Your task to perform on an android device: add a contact in the contacts app Image 0: 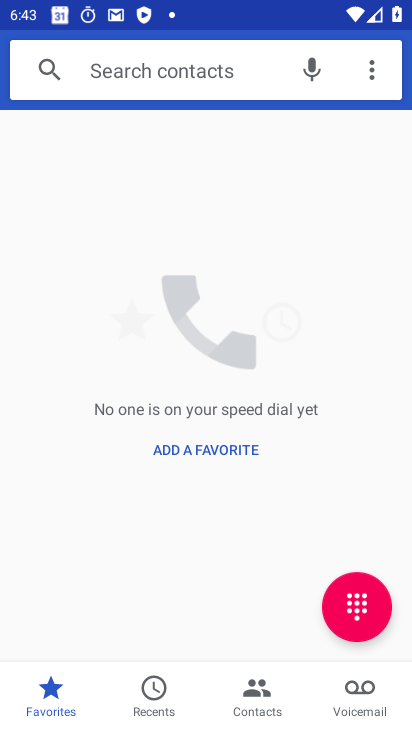
Step 0: press home button
Your task to perform on an android device: add a contact in the contacts app Image 1: 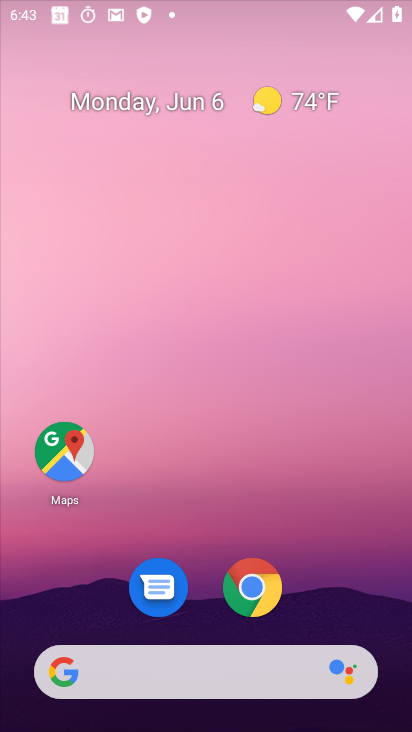
Step 1: drag from (394, 686) to (354, 404)
Your task to perform on an android device: add a contact in the contacts app Image 2: 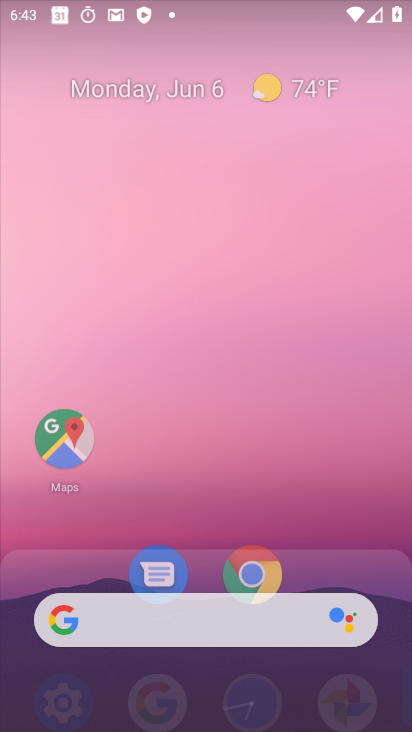
Step 2: click (49, 507)
Your task to perform on an android device: add a contact in the contacts app Image 3: 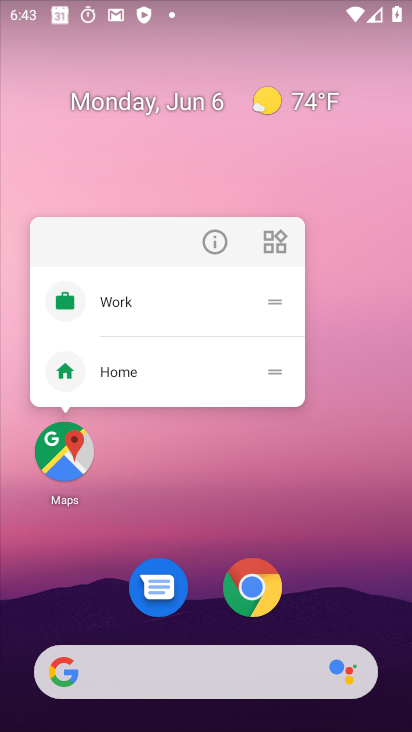
Step 3: click (304, 546)
Your task to perform on an android device: add a contact in the contacts app Image 4: 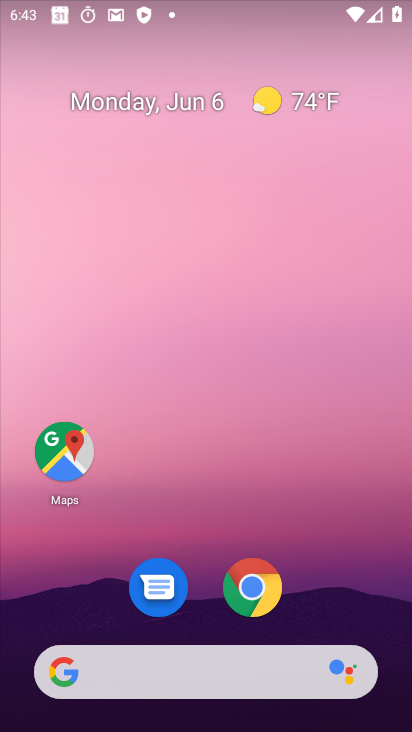
Step 4: drag from (380, 631) to (275, 56)
Your task to perform on an android device: add a contact in the contacts app Image 5: 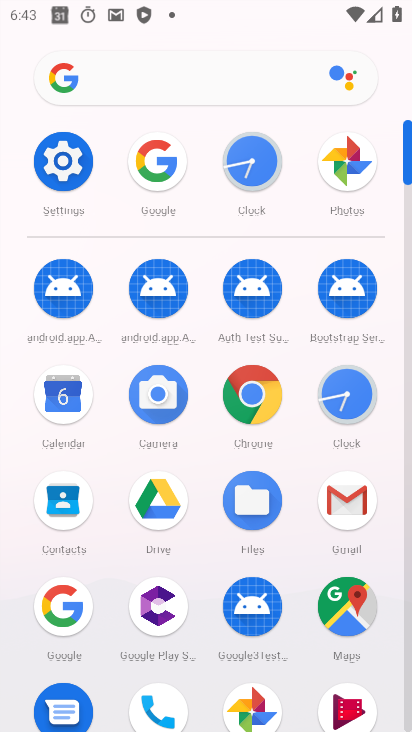
Step 5: click (71, 523)
Your task to perform on an android device: add a contact in the contacts app Image 6: 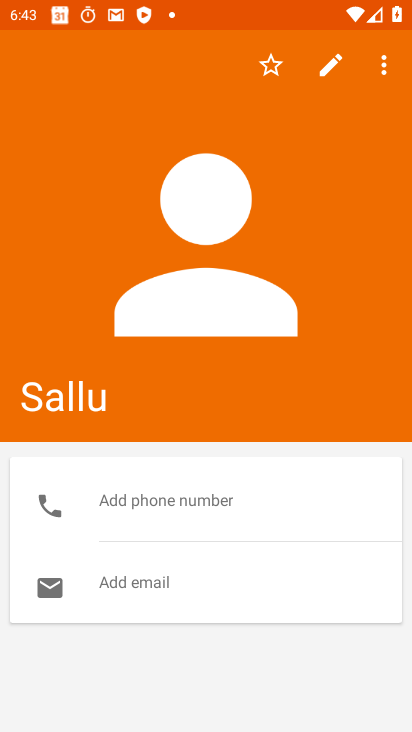
Step 6: press back button
Your task to perform on an android device: add a contact in the contacts app Image 7: 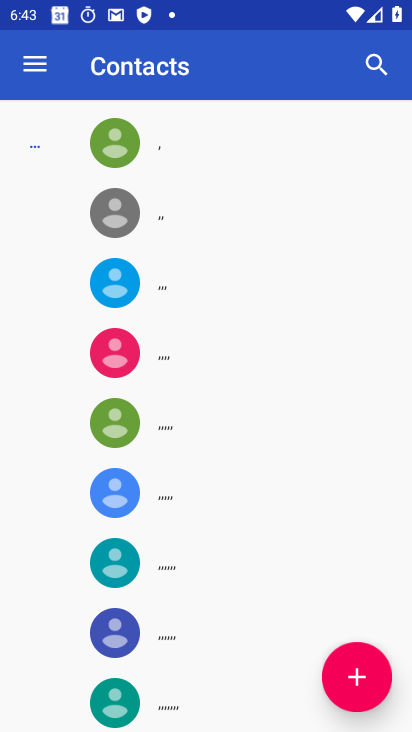
Step 7: click (351, 659)
Your task to perform on an android device: add a contact in the contacts app Image 8: 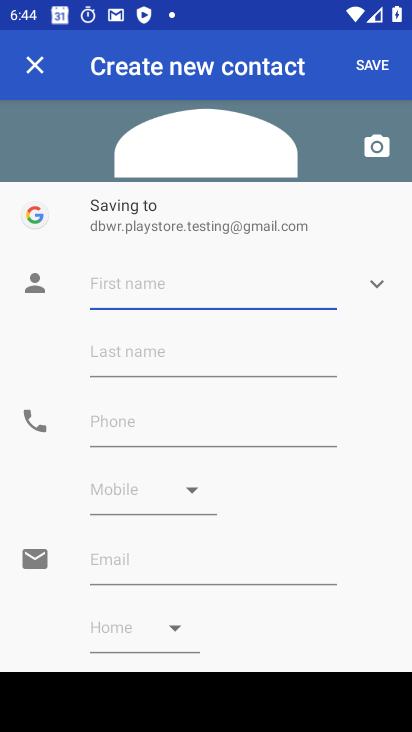
Step 8: type "veru"
Your task to perform on an android device: add a contact in the contacts app Image 9: 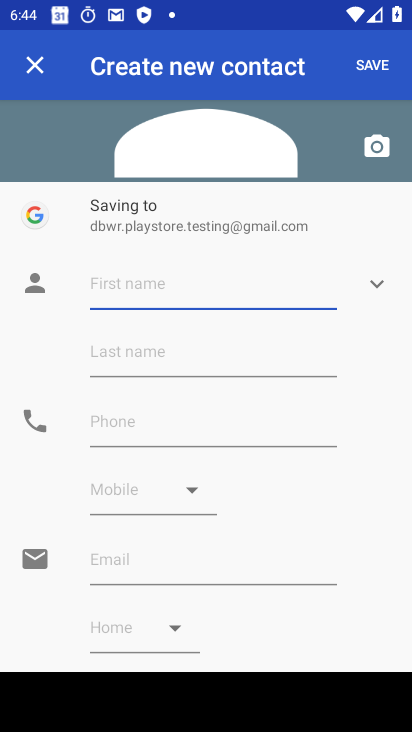
Step 9: click (372, 55)
Your task to perform on an android device: add a contact in the contacts app Image 10: 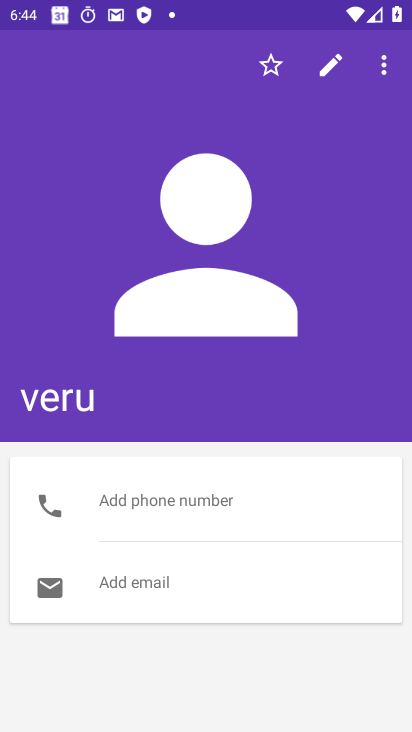
Step 10: task complete